Your task to perform on an android device: star an email in the gmail app Image 0: 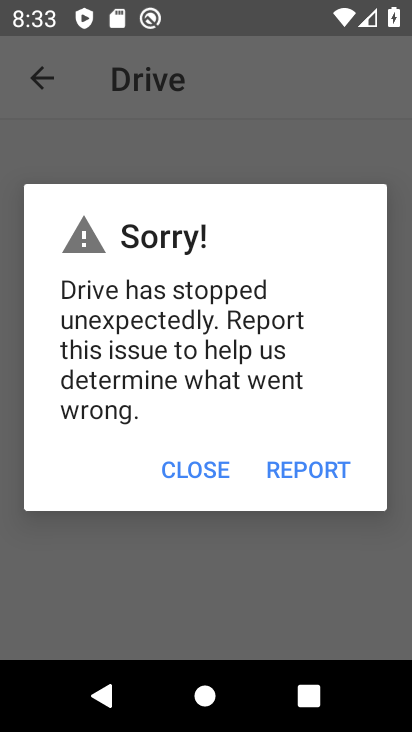
Step 0: press home button
Your task to perform on an android device: star an email in the gmail app Image 1: 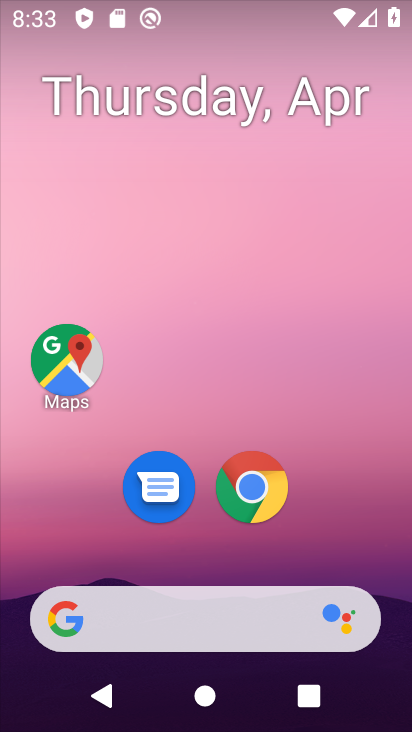
Step 1: drag from (214, 556) to (190, 88)
Your task to perform on an android device: star an email in the gmail app Image 2: 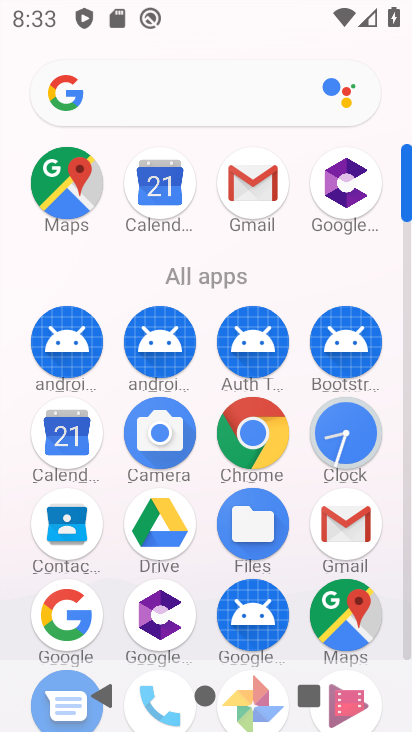
Step 2: click (245, 184)
Your task to perform on an android device: star an email in the gmail app Image 3: 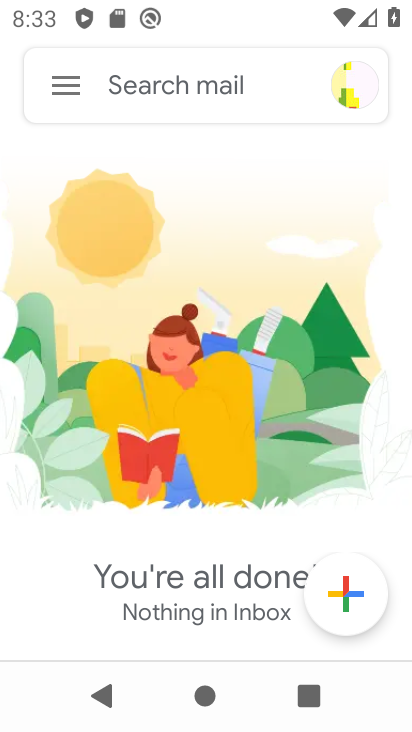
Step 3: click (67, 85)
Your task to perform on an android device: star an email in the gmail app Image 4: 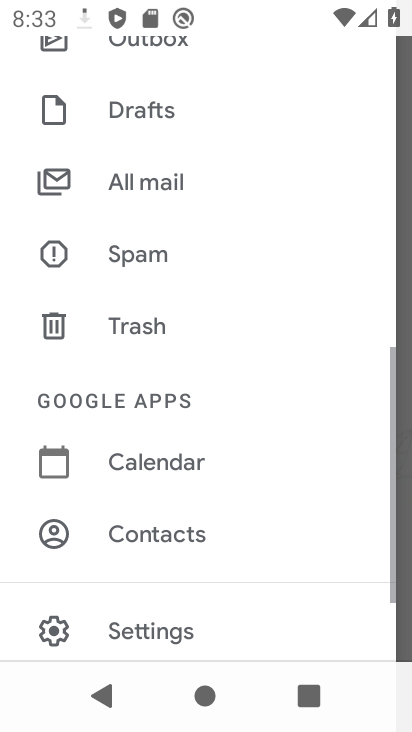
Step 4: click (142, 173)
Your task to perform on an android device: star an email in the gmail app Image 5: 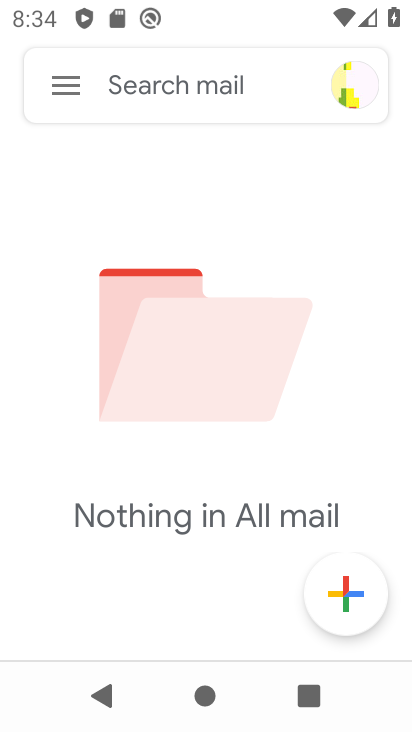
Step 5: task complete